Your task to perform on an android device: Turn on the flashlight Image 0: 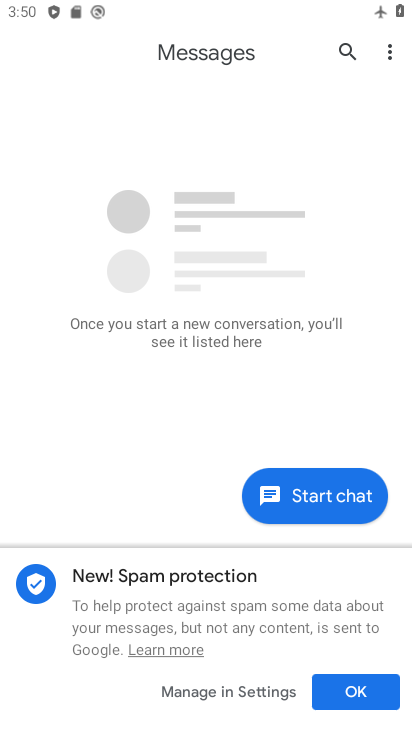
Step 0: press home button
Your task to perform on an android device: Turn on the flashlight Image 1: 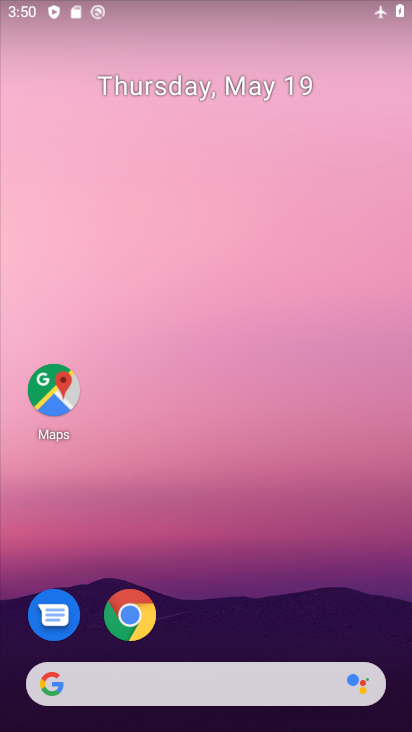
Step 1: task complete